Your task to perform on an android device: Go to Maps Image 0: 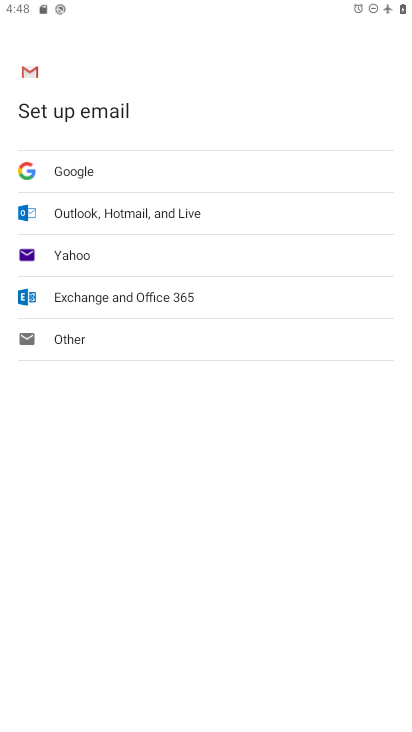
Step 0: press home button
Your task to perform on an android device: Go to Maps Image 1: 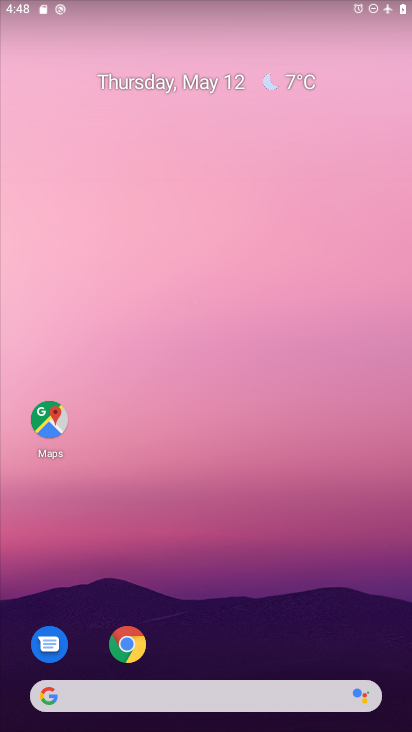
Step 1: click (64, 410)
Your task to perform on an android device: Go to Maps Image 2: 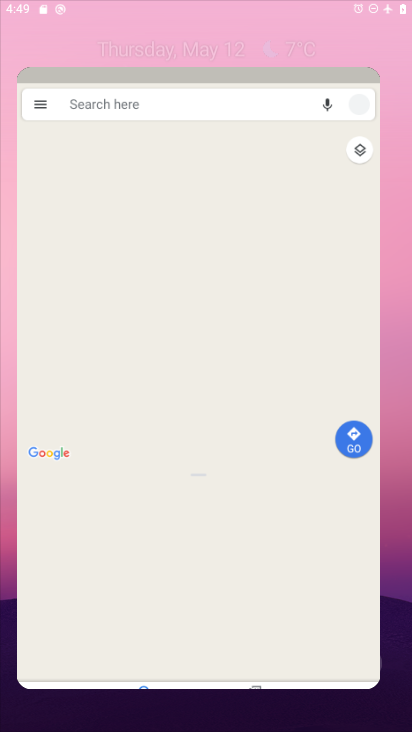
Step 2: click (57, 435)
Your task to perform on an android device: Go to Maps Image 3: 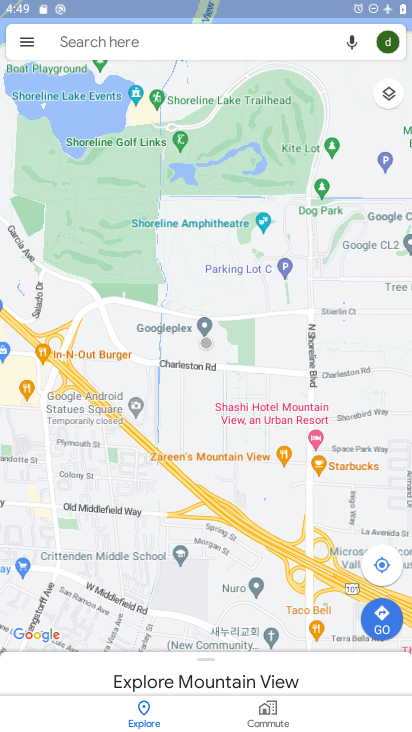
Step 3: task complete